Your task to perform on an android device: Open internet settings Image 0: 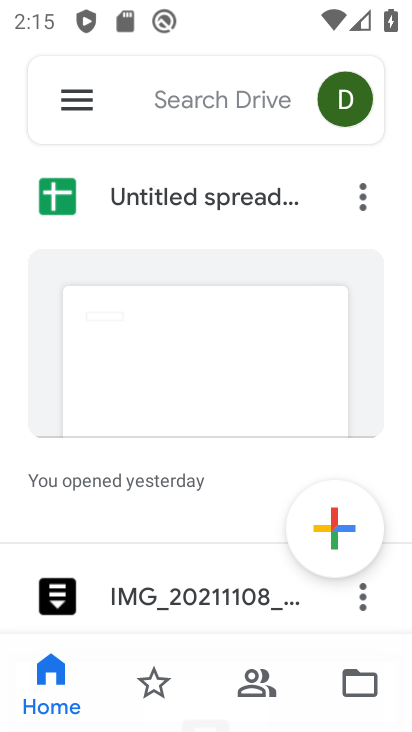
Step 0: press home button
Your task to perform on an android device: Open internet settings Image 1: 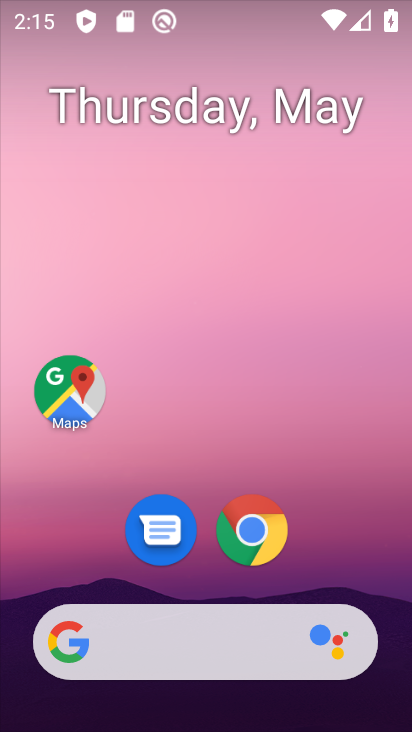
Step 1: drag from (168, 644) to (308, 128)
Your task to perform on an android device: Open internet settings Image 2: 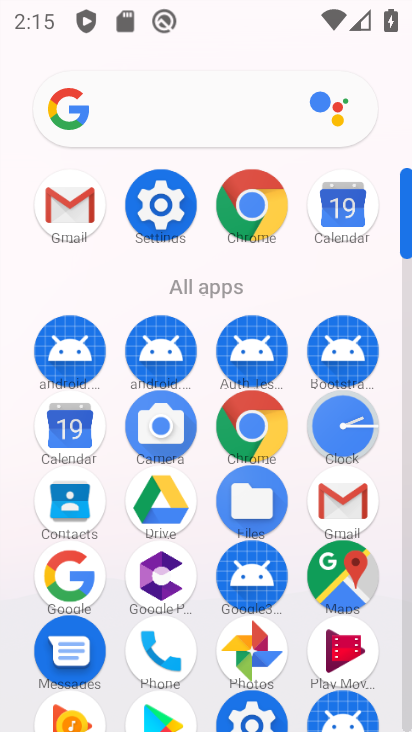
Step 2: click (166, 218)
Your task to perform on an android device: Open internet settings Image 3: 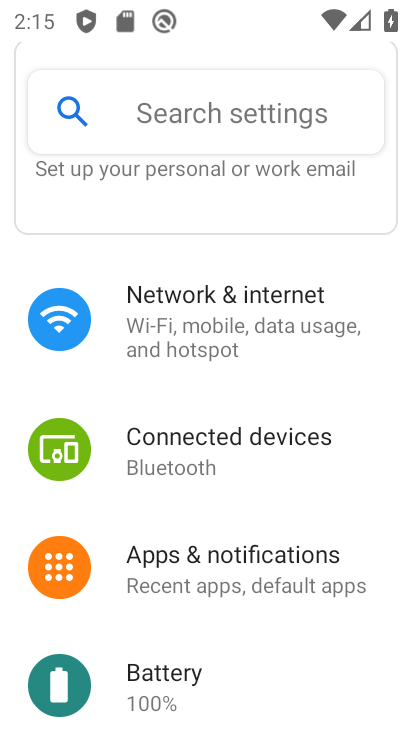
Step 3: click (206, 334)
Your task to perform on an android device: Open internet settings Image 4: 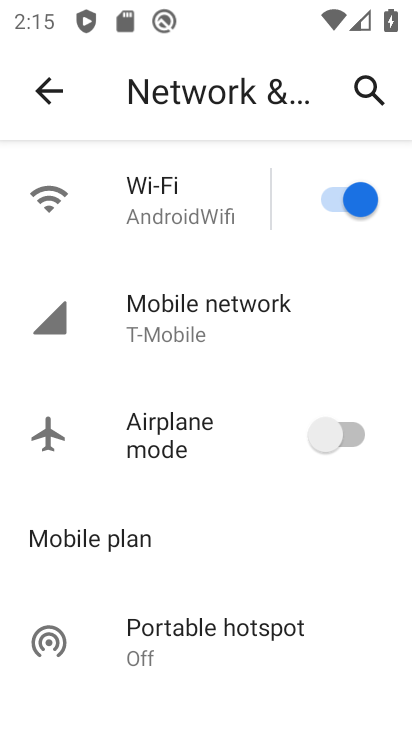
Step 4: task complete